Your task to perform on an android device: Open settings on Google Maps Image 0: 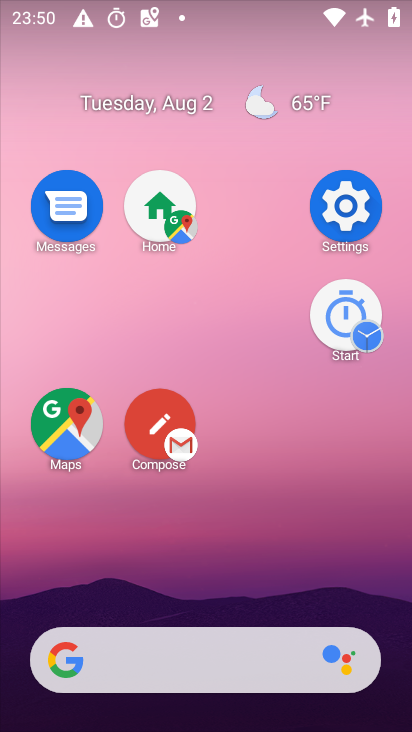
Step 0: drag from (233, 581) to (249, 132)
Your task to perform on an android device: Open settings on Google Maps Image 1: 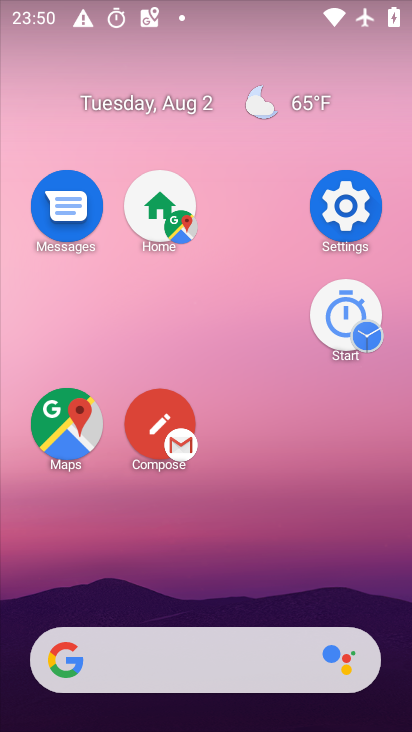
Step 1: drag from (188, 52) to (201, 208)
Your task to perform on an android device: Open settings on Google Maps Image 2: 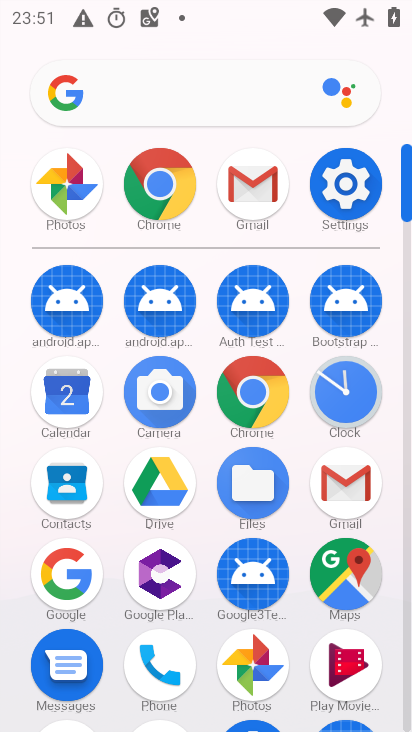
Step 2: click (345, 581)
Your task to perform on an android device: Open settings on Google Maps Image 3: 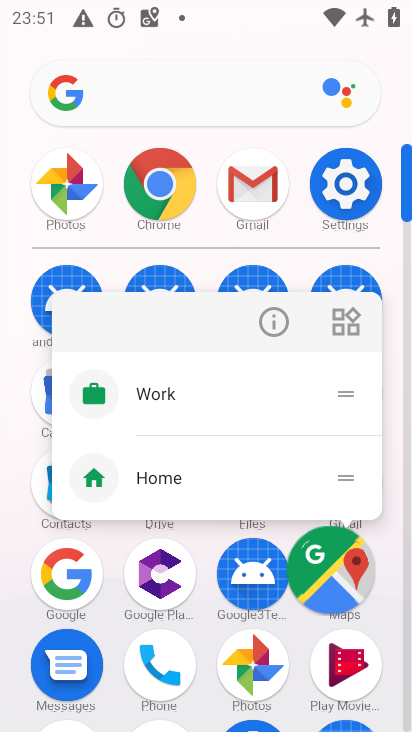
Step 3: click (331, 577)
Your task to perform on an android device: Open settings on Google Maps Image 4: 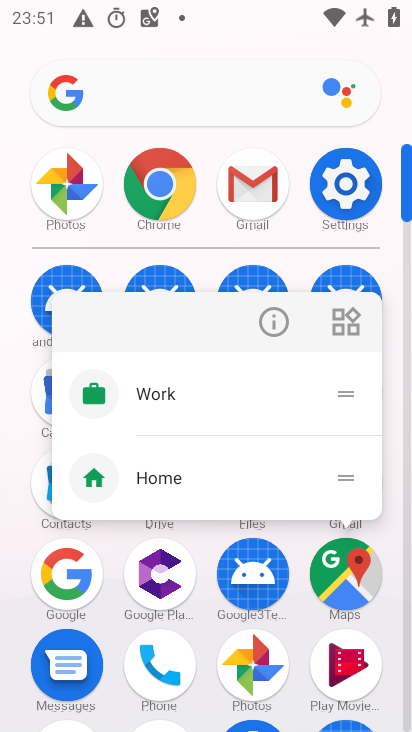
Step 4: click (347, 568)
Your task to perform on an android device: Open settings on Google Maps Image 5: 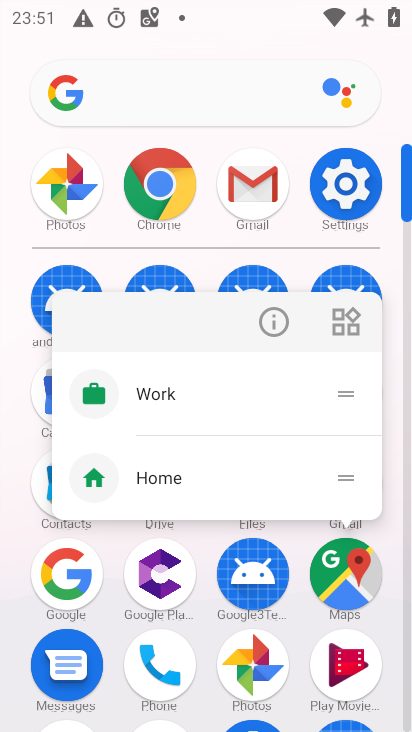
Step 5: click (347, 568)
Your task to perform on an android device: Open settings on Google Maps Image 6: 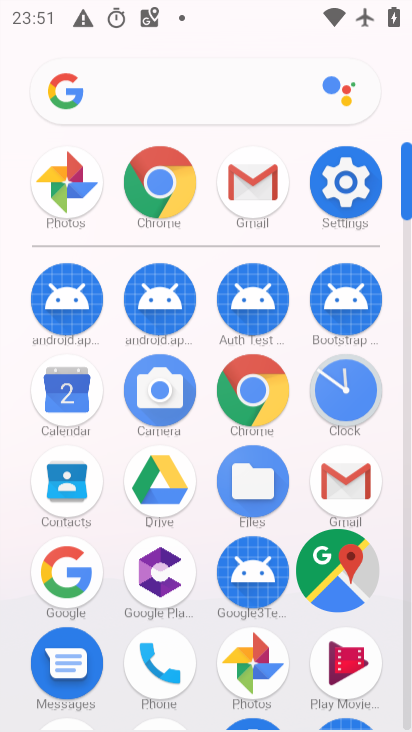
Step 6: click (349, 569)
Your task to perform on an android device: Open settings on Google Maps Image 7: 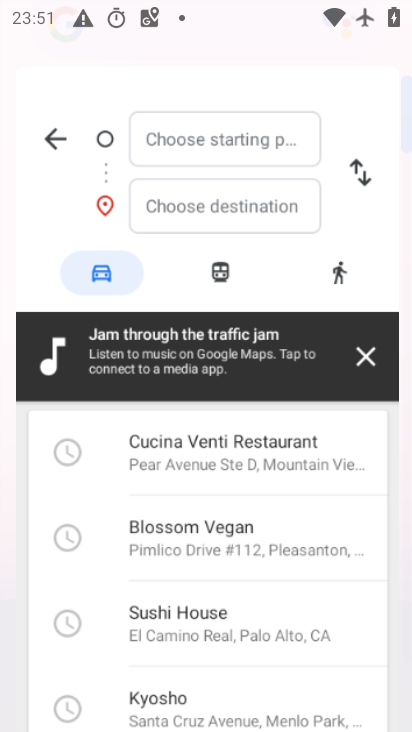
Step 7: click (349, 569)
Your task to perform on an android device: Open settings on Google Maps Image 8: 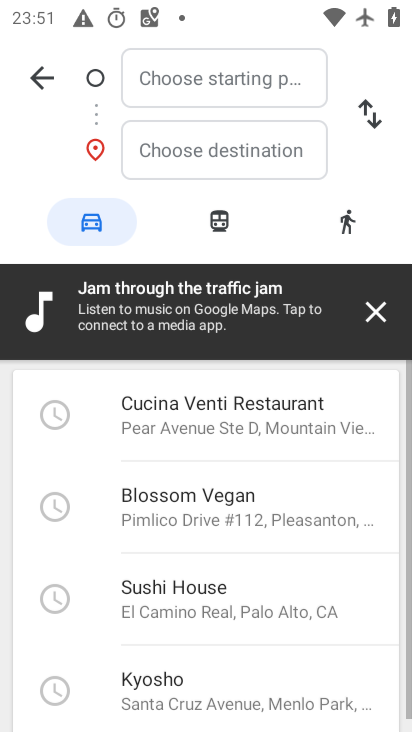
Step 8: click (23, 72)
Your task to perform on an android device: Open settings on Google Maps Image 9: 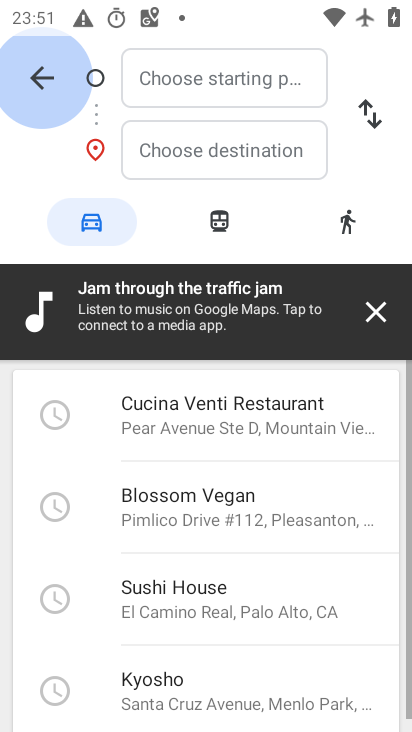
Step 9: click (24, 71)
Your task to perform on an android device: Open settings on Google Maps Image 10: 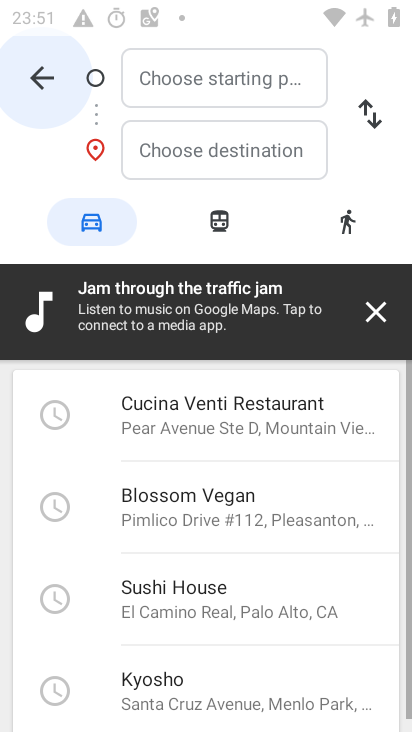
Step 10: click (24, 71)
Your task to perform on an android device: Open settings on Google Maps Image 11: 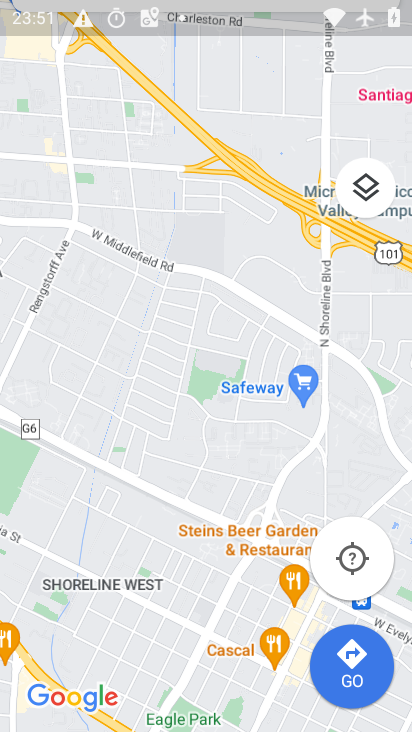
Step 11: click (24, 69)
Your task to perform on an android device: Open settings on Google Maps Image 12: 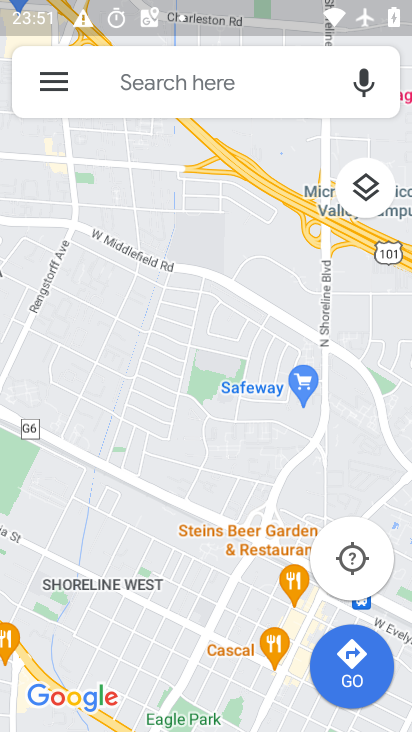
Step 12: click (23, 66)
Your task to perform on an android device: Open settings on Google Maps Image 13: 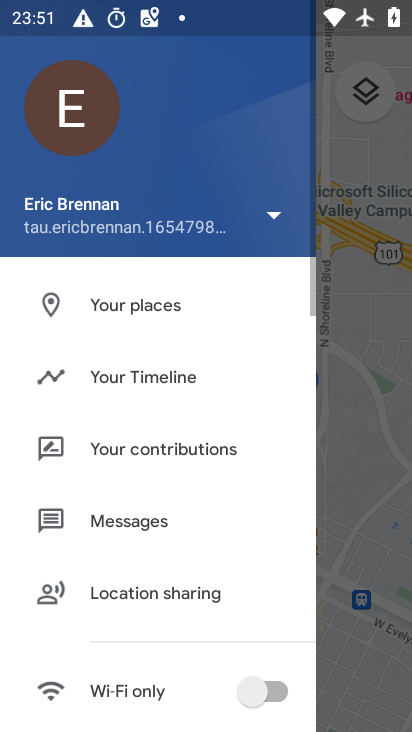
Step 13: task complete